Your task to perform on an android device: Search for the best rated book on Goodreads. Image 0: 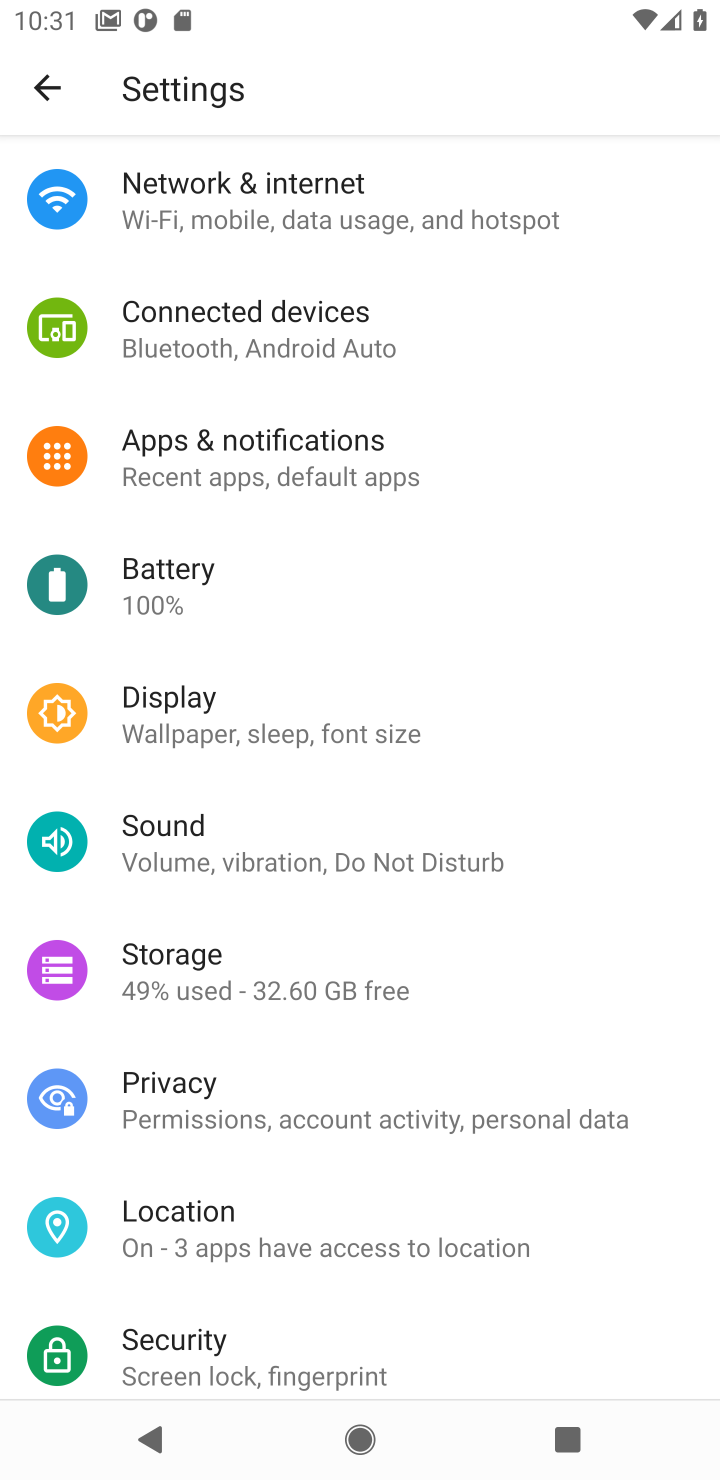
Step 0: press home button
Your task to perform on an android device: Search for the best rated book on Goodreads. Image 1: 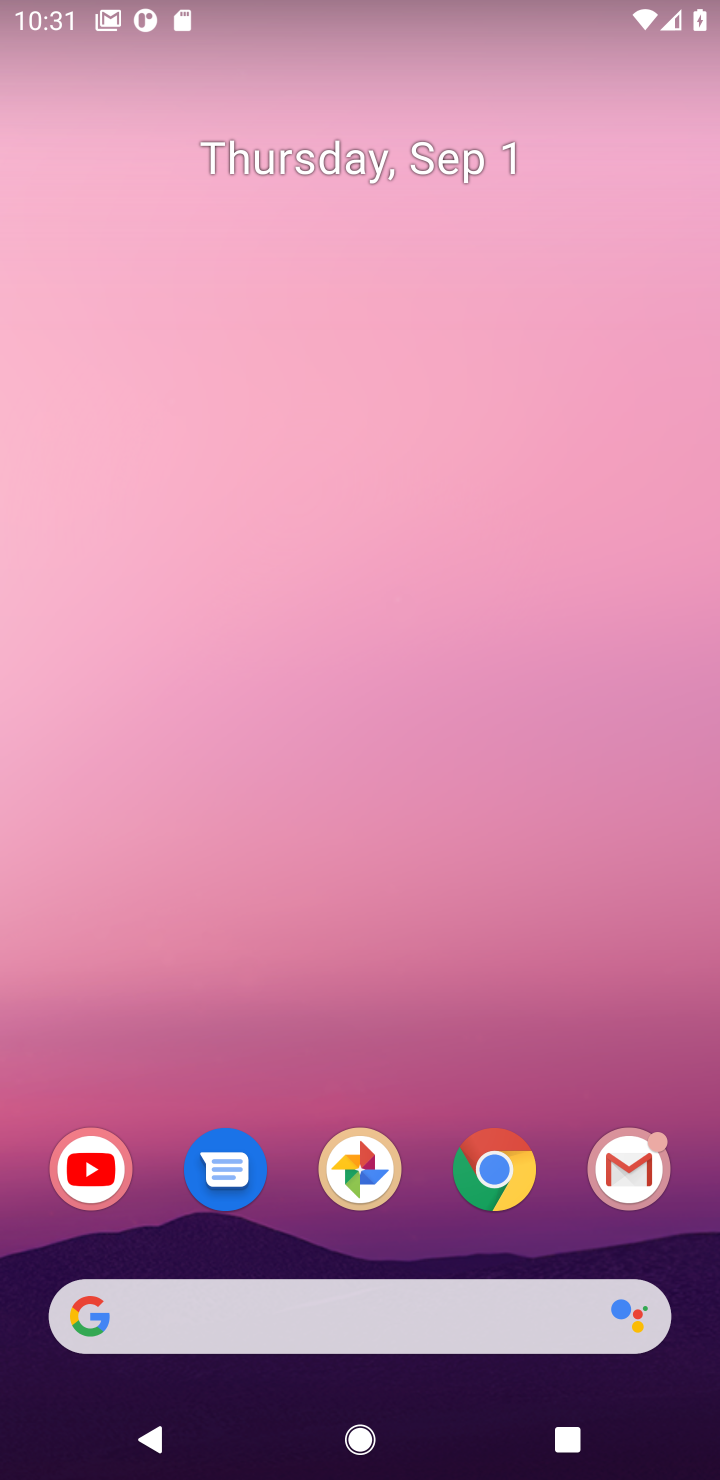
Step 1: drag from (419, 1233) to (515, 156)
Your task to perform on an android device: Search for the best rated book on Goodreads. Image 2: 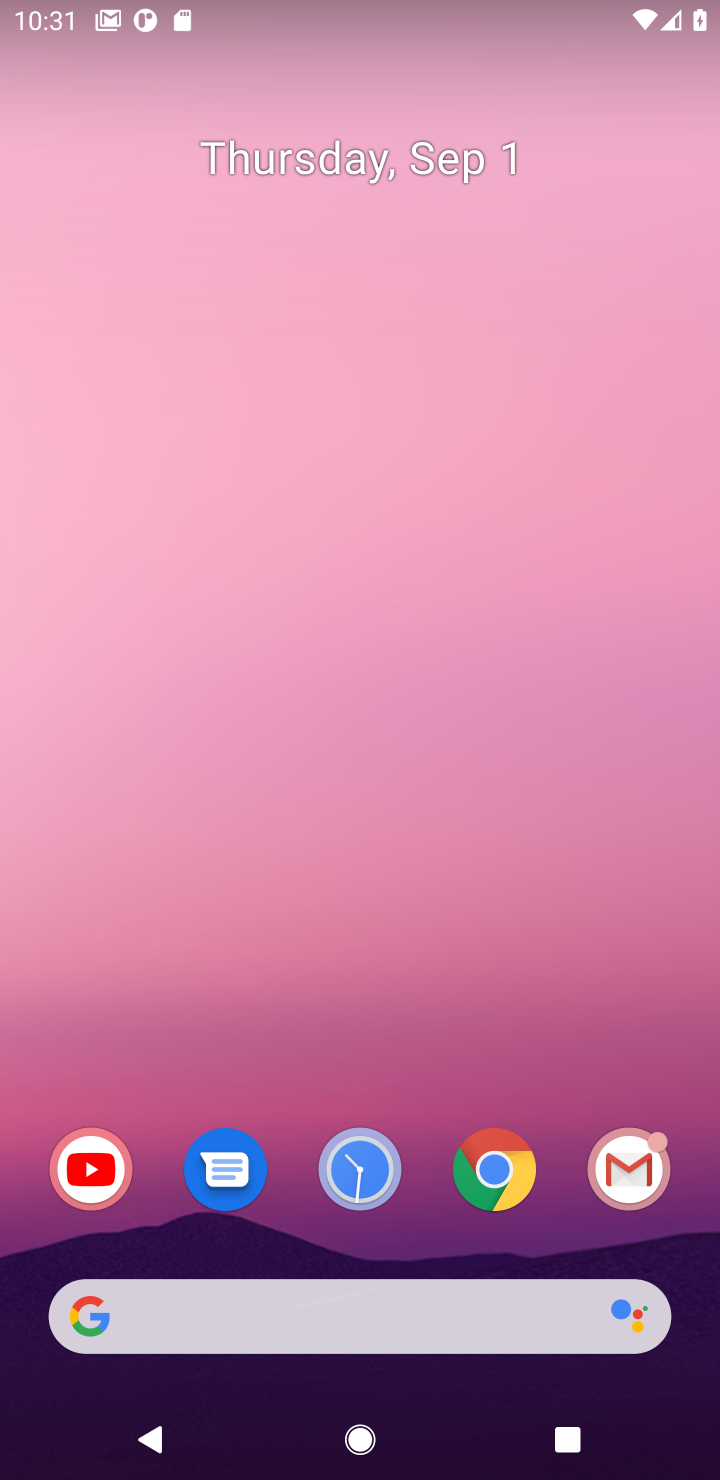
Step 2: drag from (469, 521) to (500, 146)
Your task to perform on an android device: Search for the best rated book on Goodreads. Image 3: 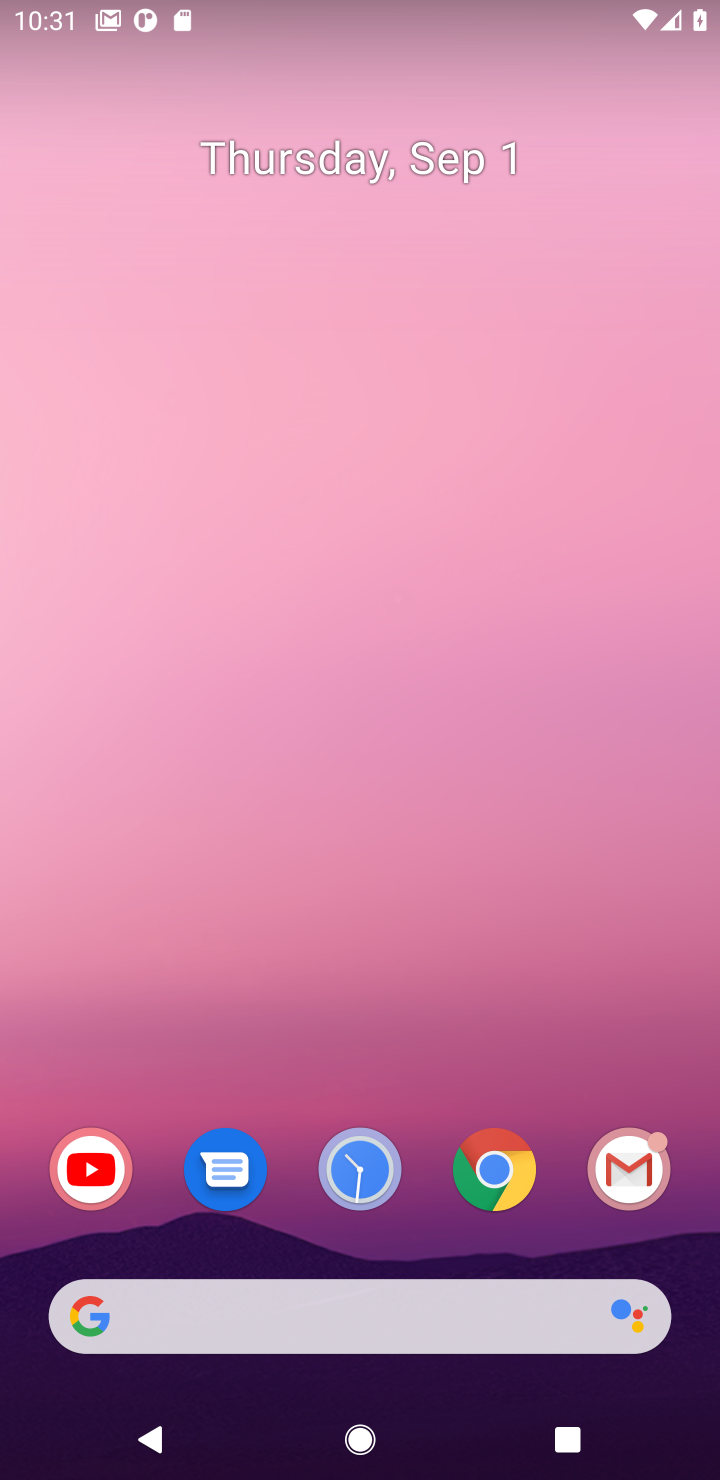
Step 3: drag from (410, 1035) to (542, 114)
Your task to perform on an android device: Search for the best rated book on Goodreads. Image 4: 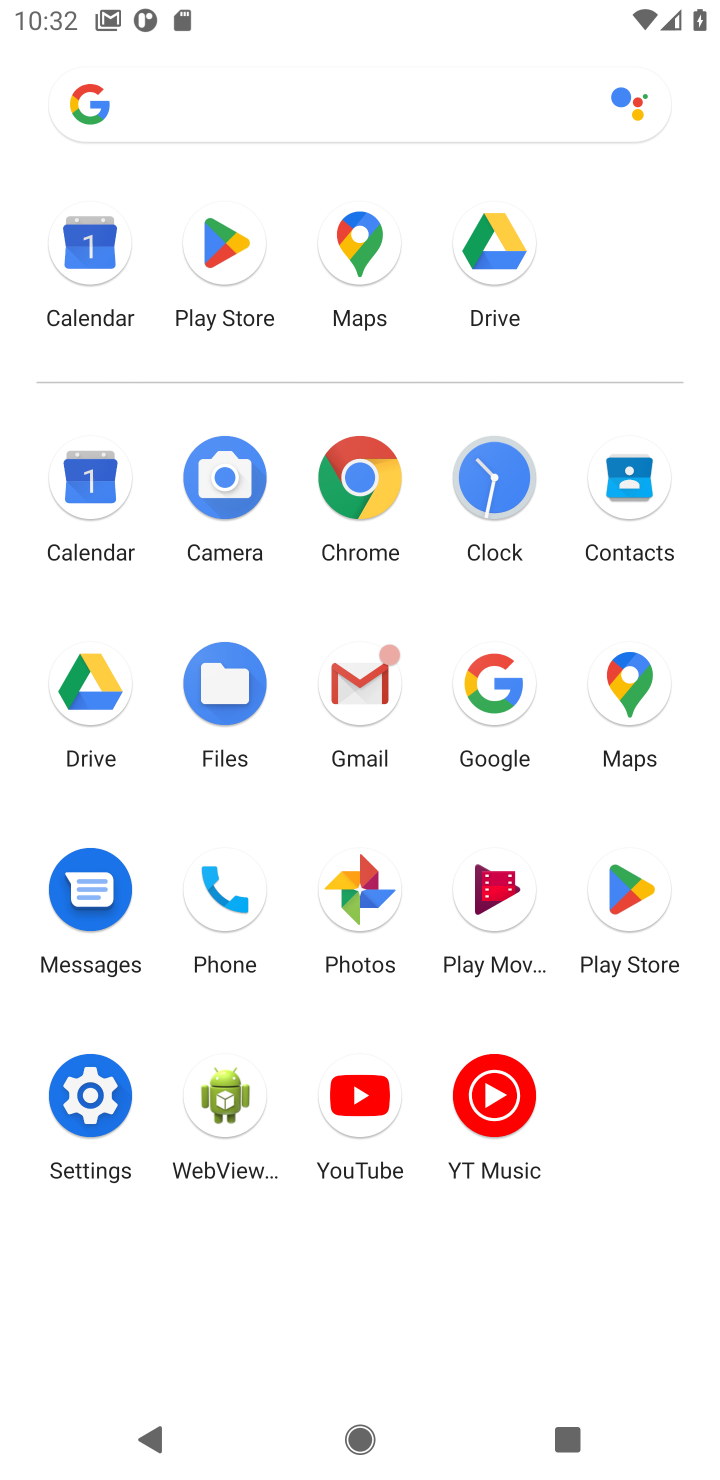
Step 4: click (357, 468)
Your task to perform on an android device: Search for the best rated book on Goodreads. Image 5: 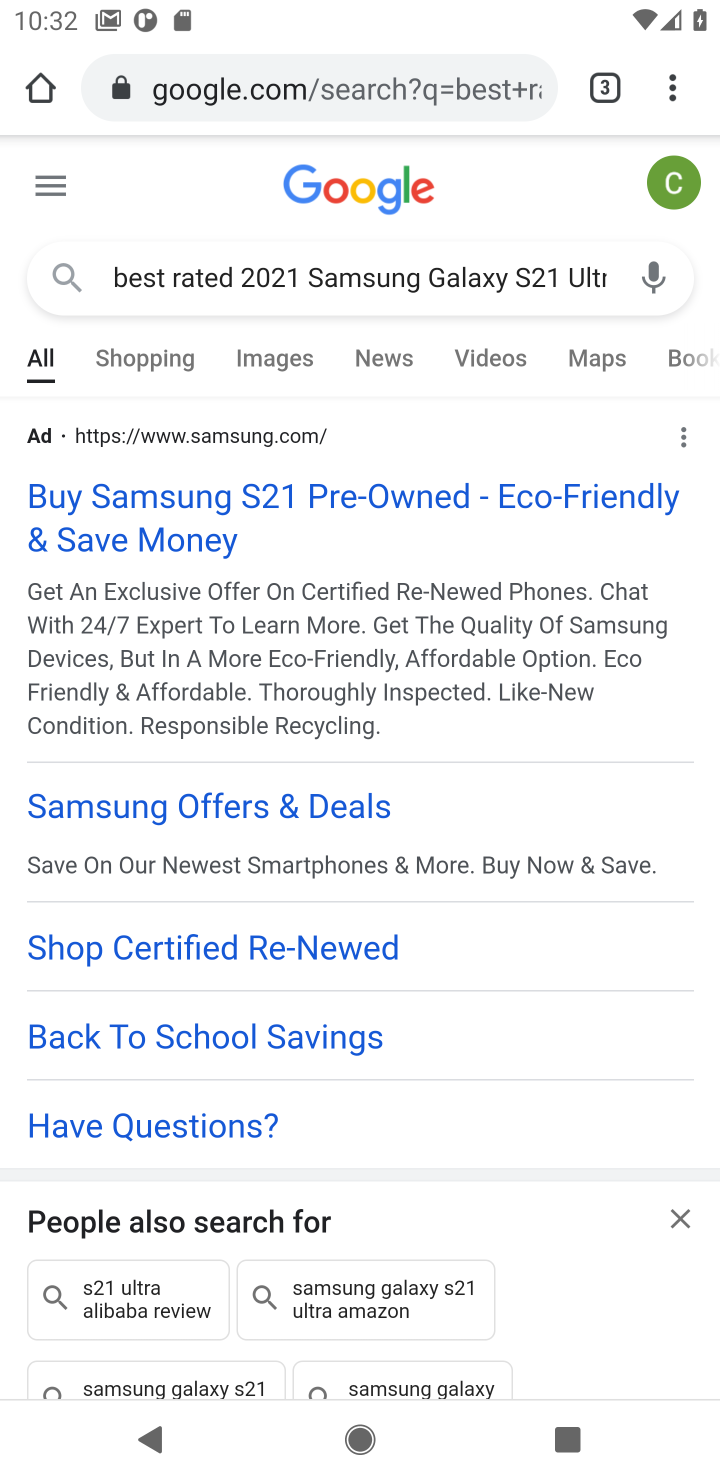
Step 5: click (351, 69)
Your task to perform on an android device: Search for the best rated book on Goodreads. Image 6: 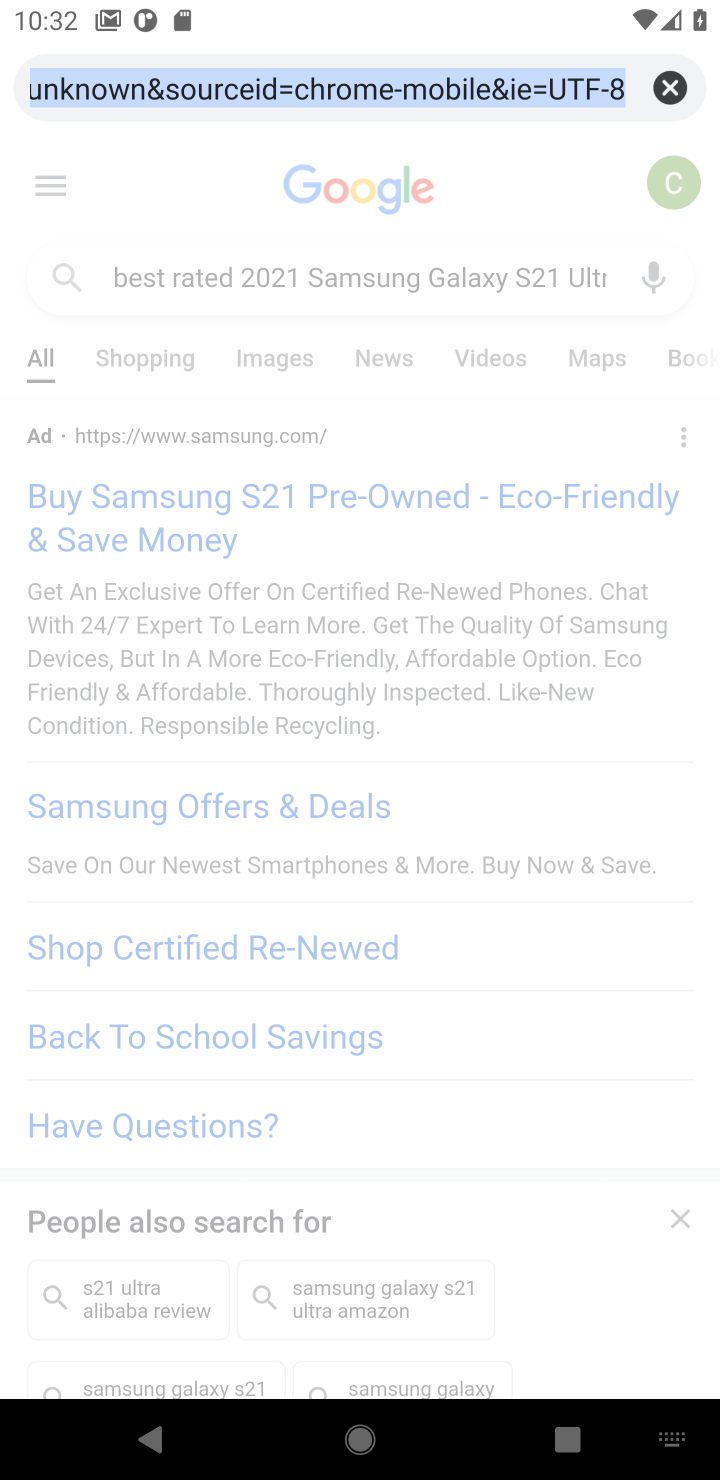
Step 6: type "best rated book on Goodreads"
Your task to perform on an android device: Search for the best rated book on Goodreads. Image 7: 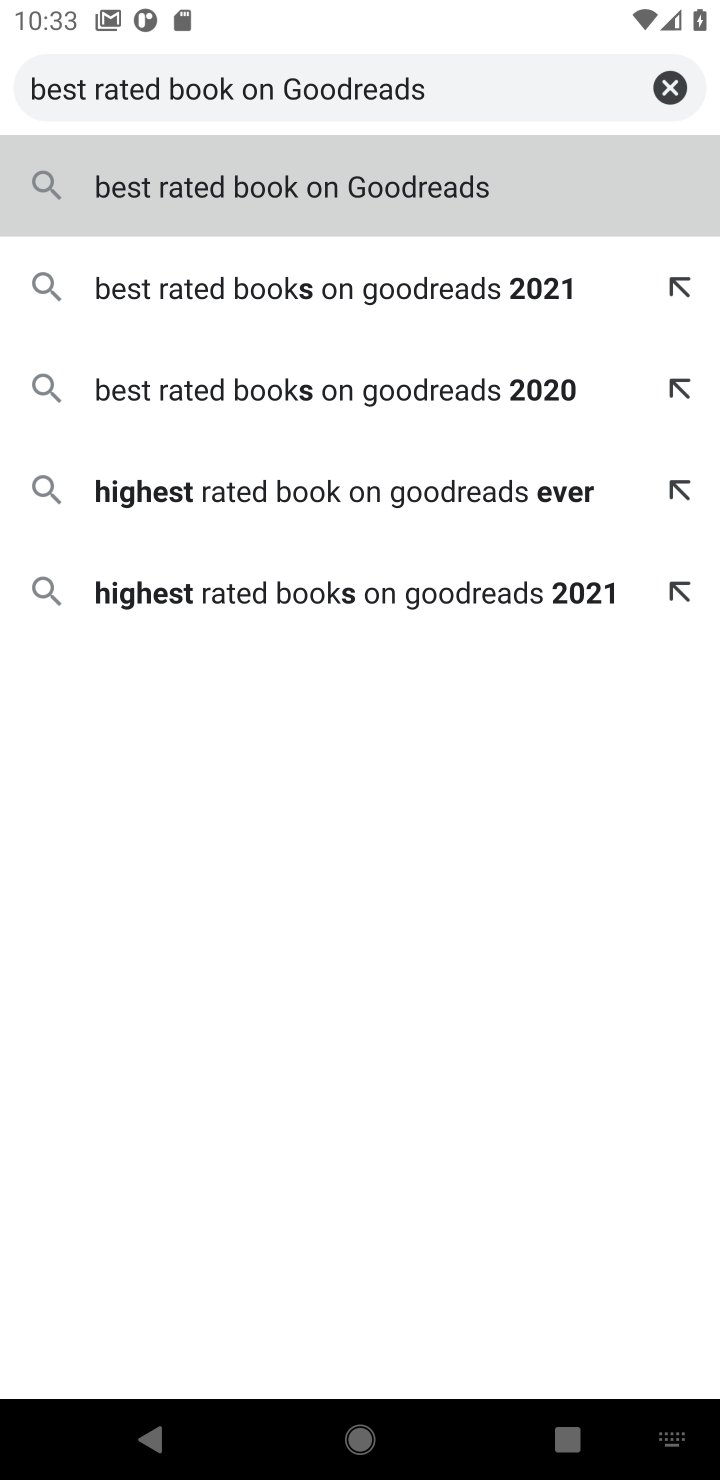
Step 7: click (321, 202)
Your task to perform on an android device: Search for the best rated book on Goodreads. Image 8: 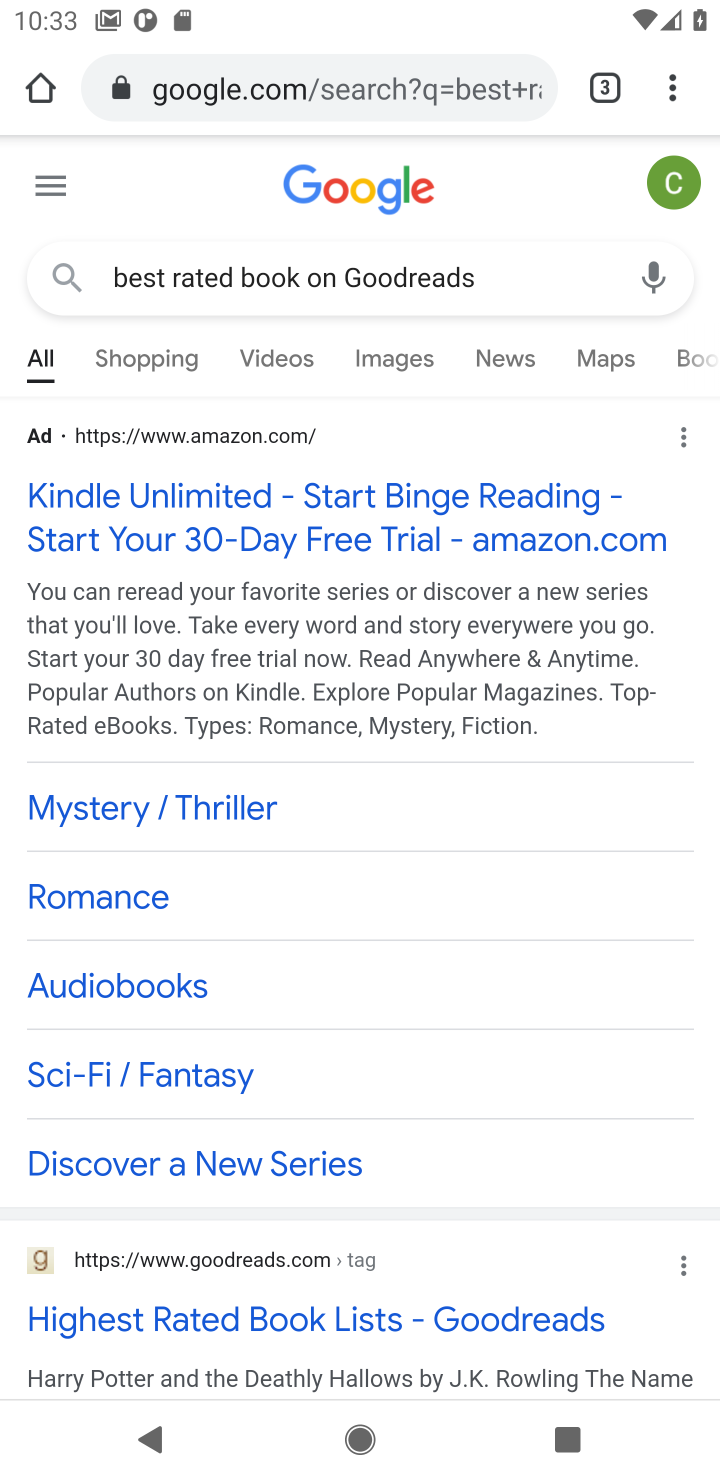
Step 8: click (277, 1317)
Your task to perform on an android device: Search for the best rated book on Goodreads. Image 9: 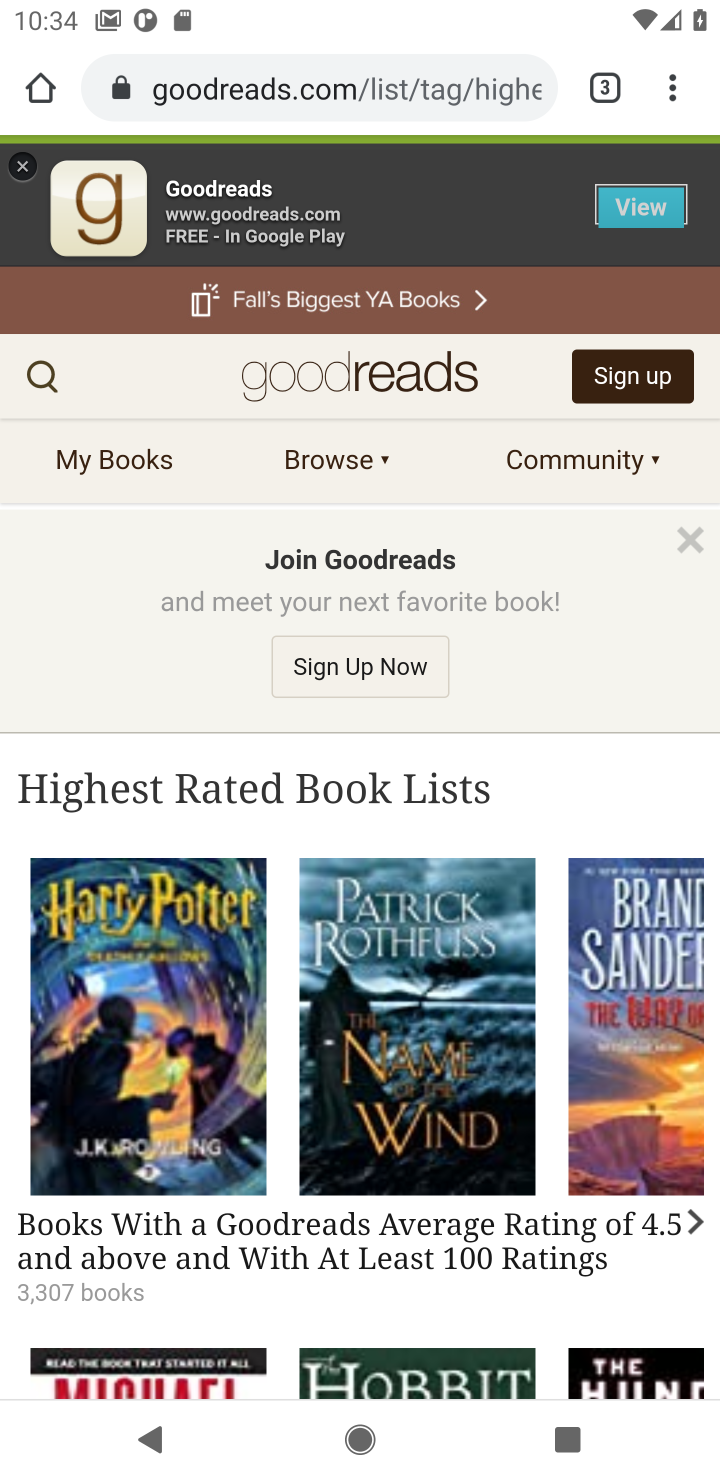
Step 9: drag from (367, 1204) to (489, 493)
Your task to perform on an android device: Search for the best rated book on Goodreads. Image 10: 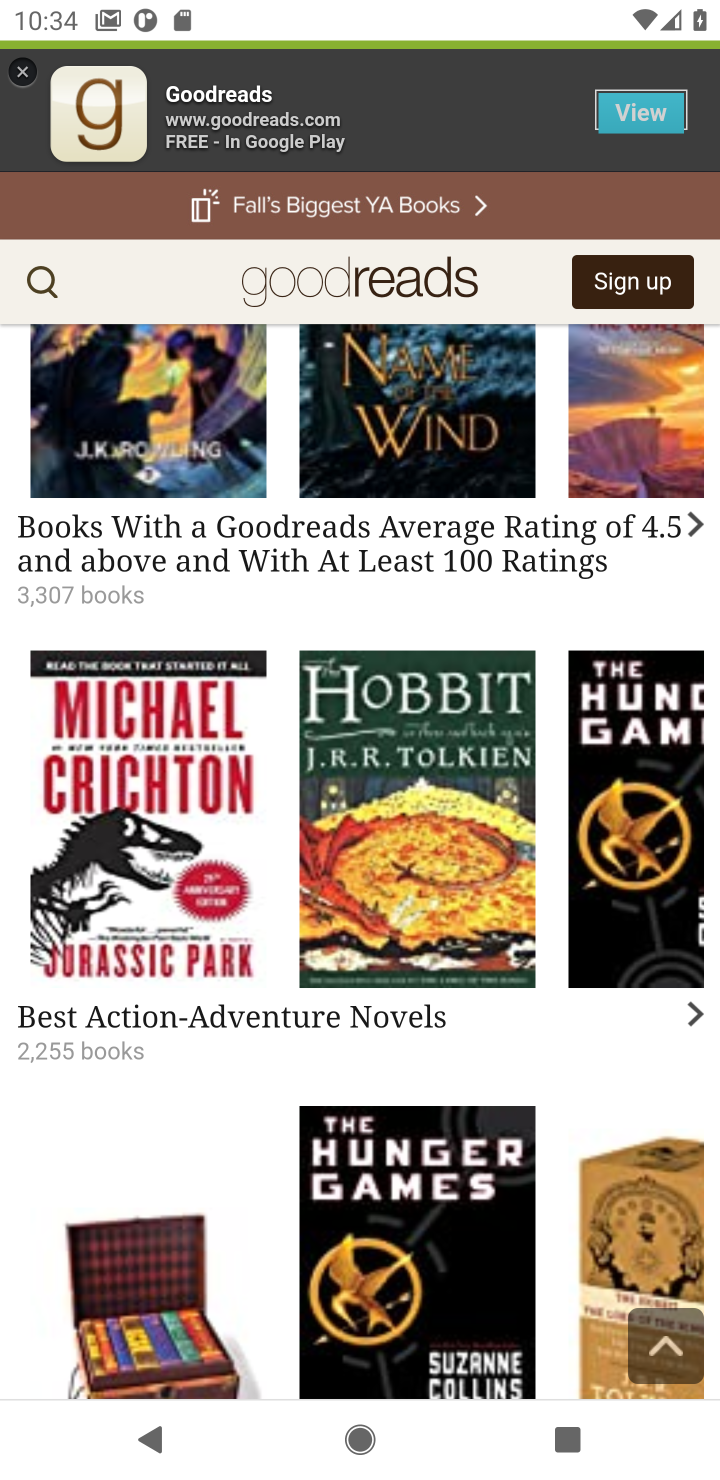
Step 10: drag from (326, 1041) to (462, 333)
Your task to perform on an android device: Search for the best rated book on Goodreads. Image 11: 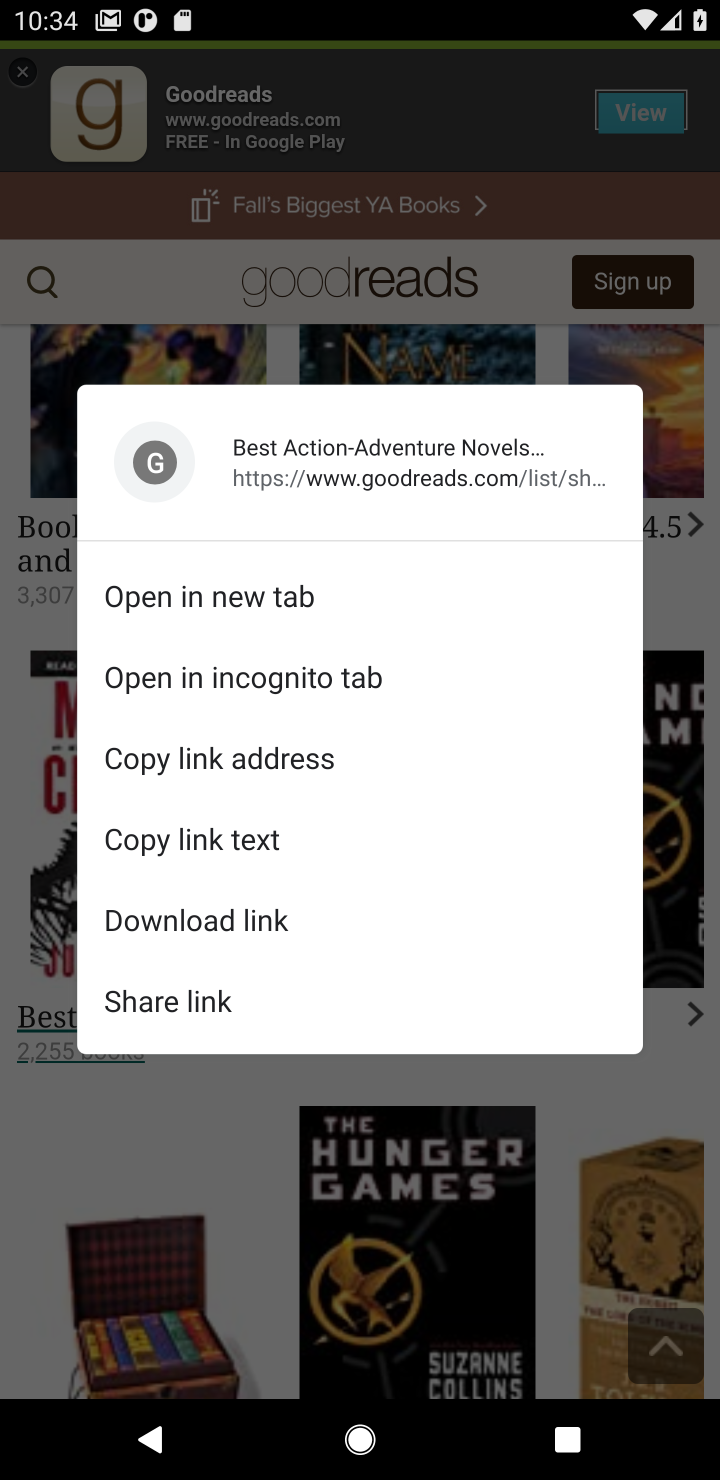
Step 11: click (245, 1226)
Your task to perform on an android device: Search for the best rated book on Goodreads. Image 12: 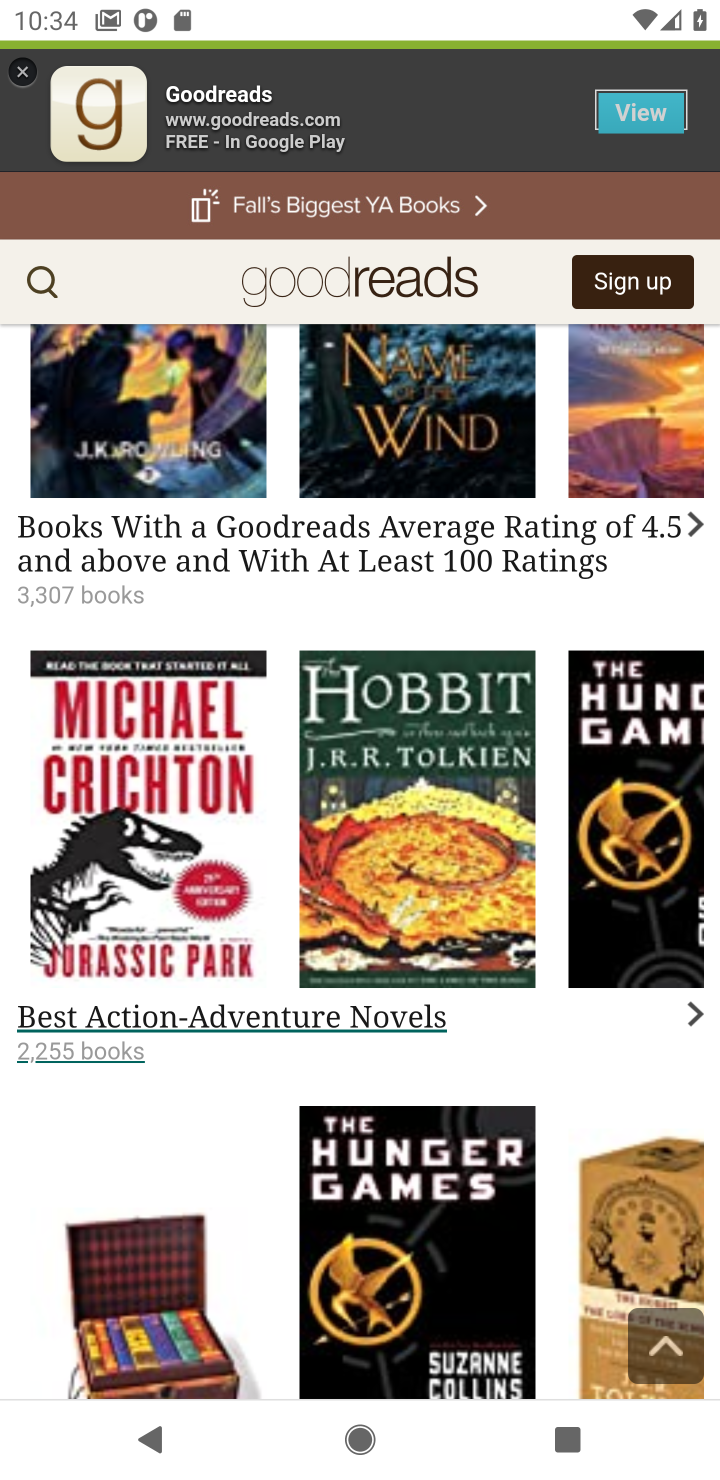
Step 12: click (381, 485)
Your task to perform on an android device: Search for the best rated book on Goodreads. Image 13: 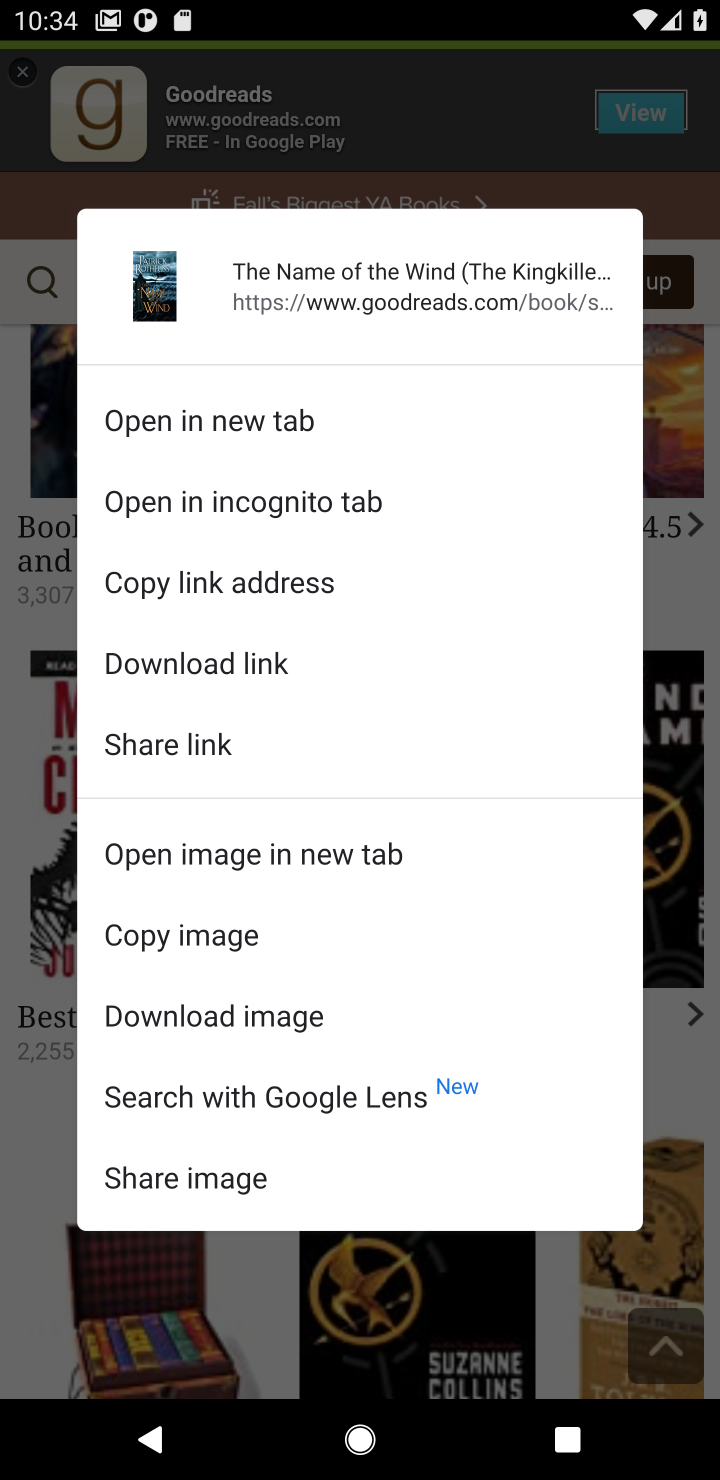
Step 13: click (24, 1331)
Your task to perform on an android device: Search for the best rated book on Goodreads. Image 14: 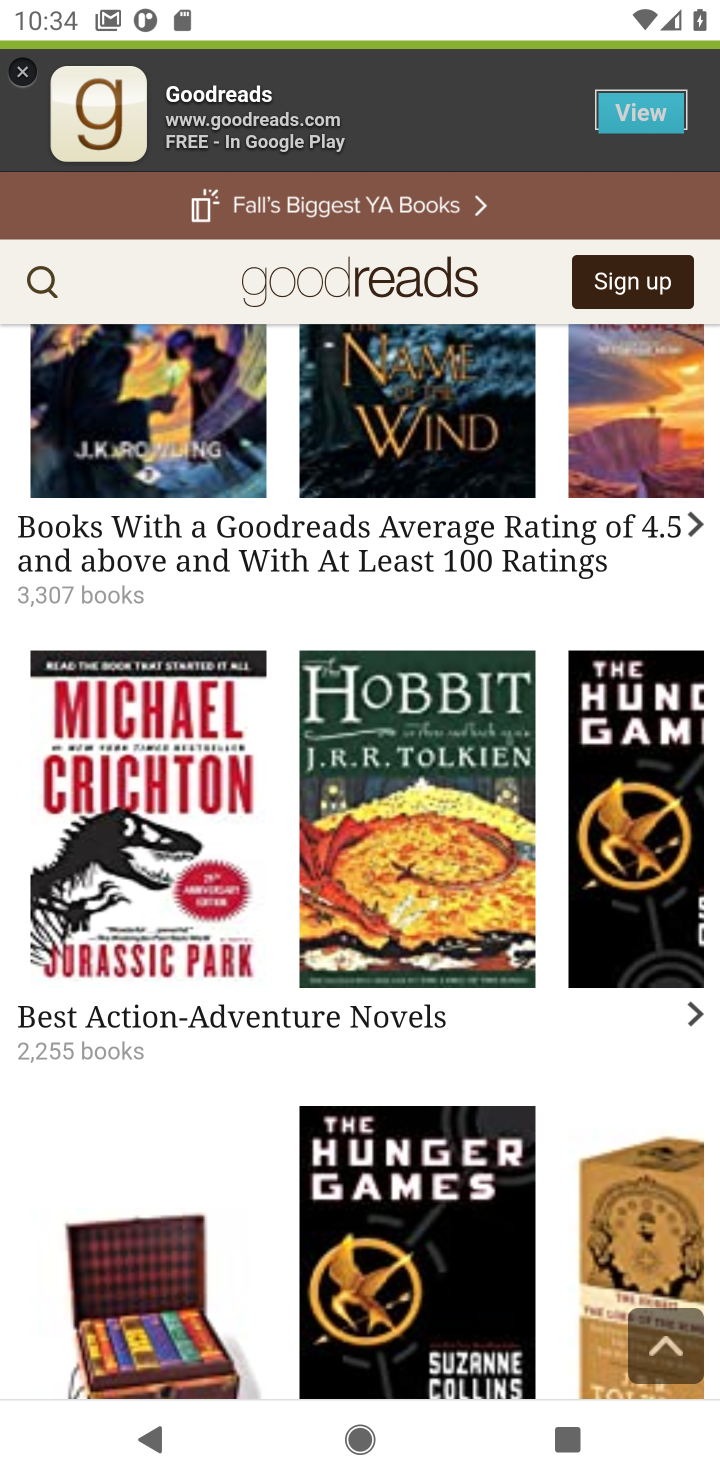
Step 14: task complete